Your task to perform on an android device: Go to Wikipedia Image 0: 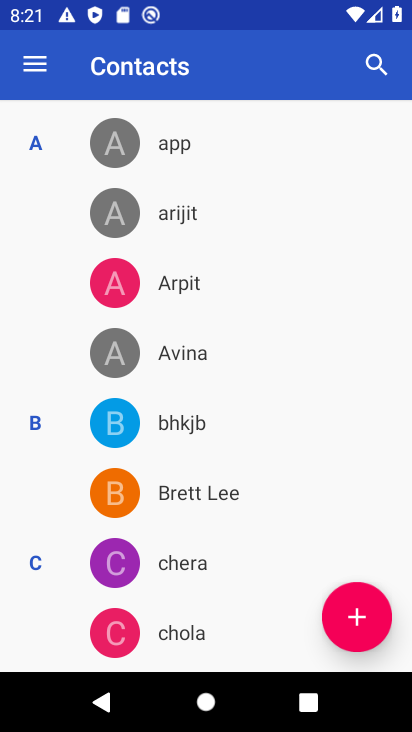
Step 0: press home button
Your task to perform on an android device: Go to Wikipedia Image 1: 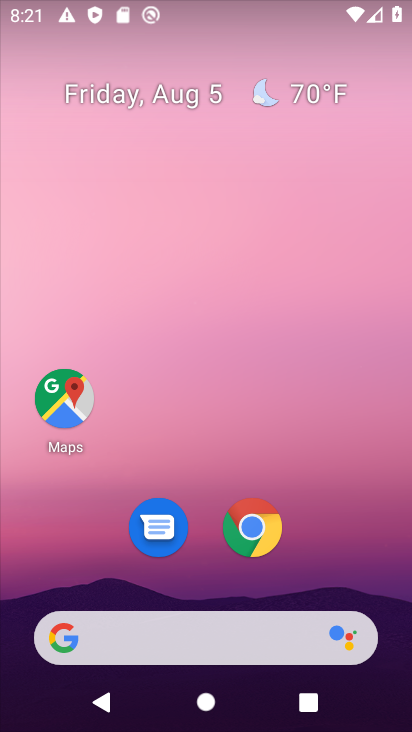
Step 1: click (231, 524)
Your task to perform on an android device: Go to Wikipedia Image 2: 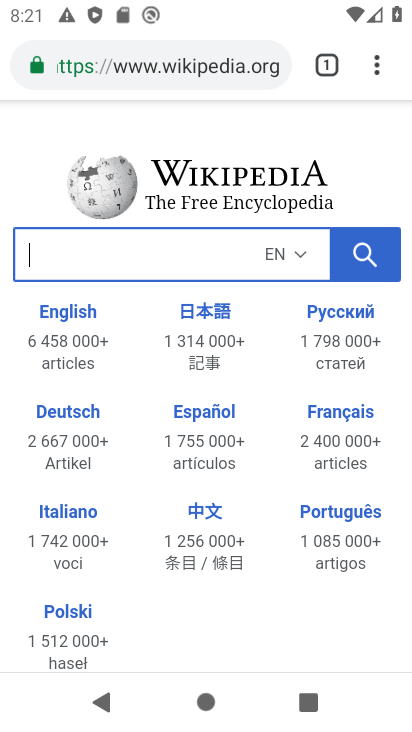
Step 2: task complete